Your task to perform on an android device: turn off translation in the chrome app Image 0: 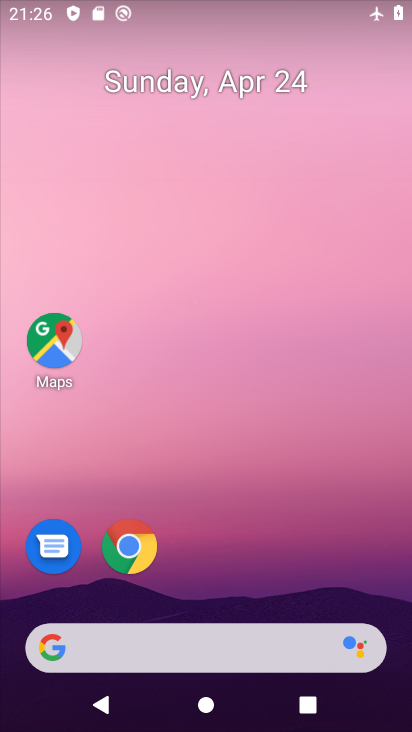
Step 0: drag from (268, 537) to (261, 184)
Your task to perform on an android device: turn off translation in the chrome app Image 1: 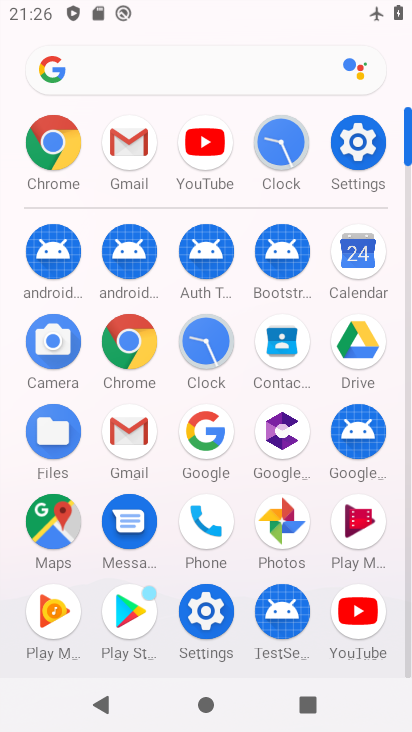
Step 1: click (129, 331)
Your task to perform on an android device: turn off translation in the chrome app Image 2: 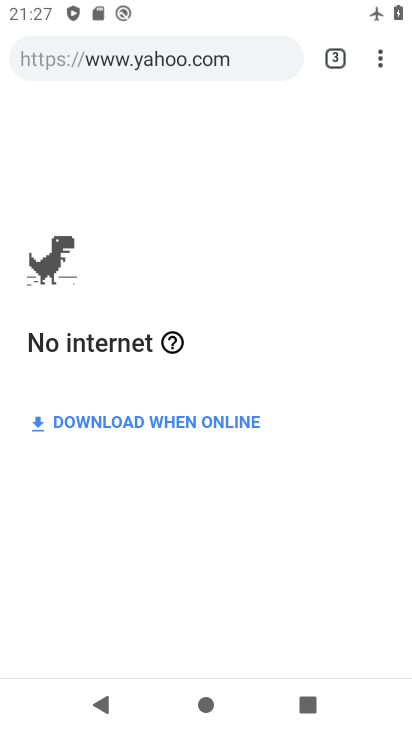
Step 2: click (365, 56)
Your task to perform on an android device: turn off translation in the chrome app Image 3: 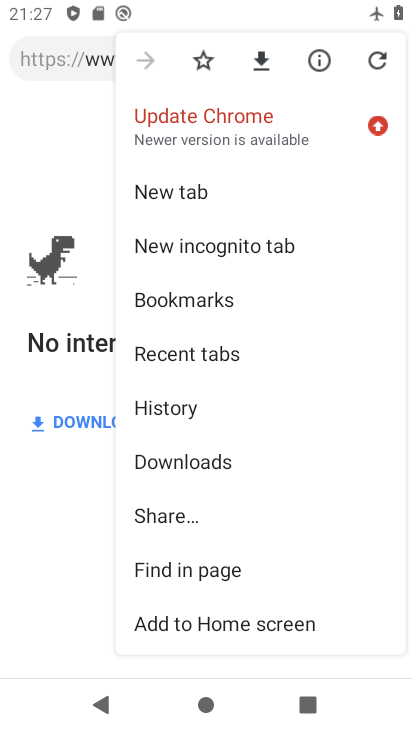
Step 3: drag from (217, 546) to (296, 154)
Your task to perform on an android device: turn off translation in the chrome app Image 4: 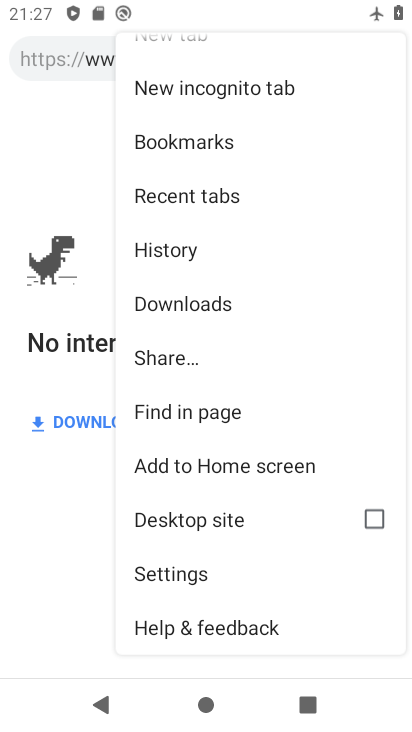
Step 4: click (184, 571)
Your task to perform on an android device: turn off translation in the chrome app Image 5: 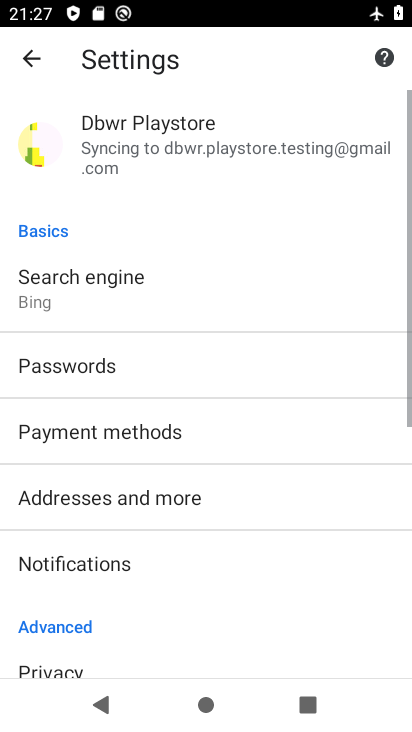
Step 5: drag from (184, 599) to (275, 237)
Your task to perform on an android device: turn off translation in the chrome app Image 6: 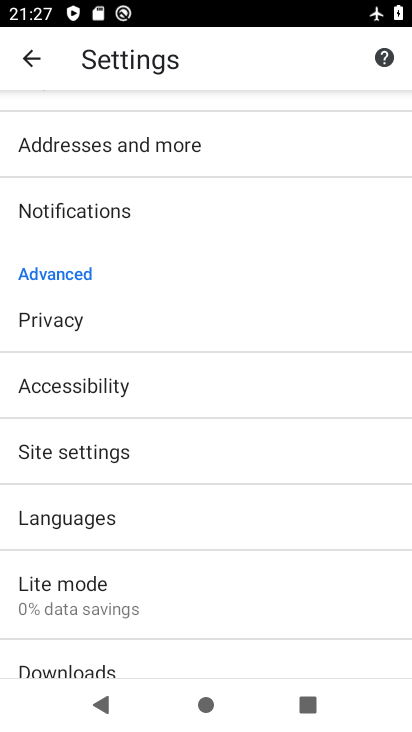
Step 6: click (117, 520)
Your task to perform on an android device: turn off translation in the chrome app Image 7: 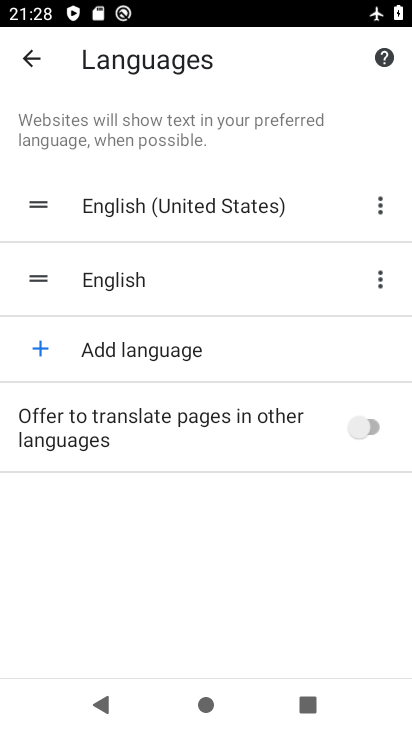
Step 7: task complete